Your task to perform on an android device: Open Google Maps and go to "Timeline" Image 0: 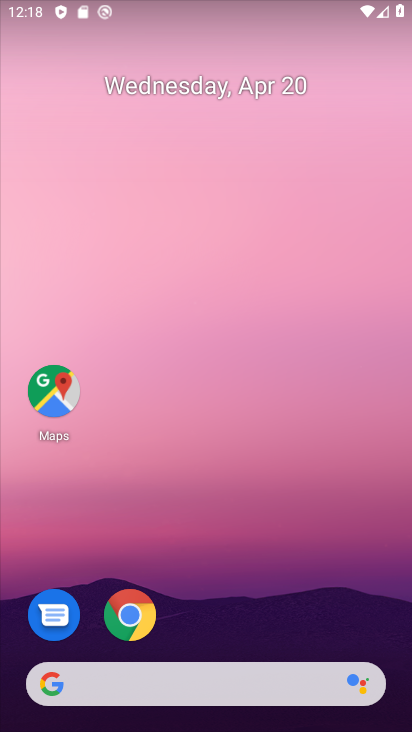
Step 0: click (35, 395)
Your task to perform on an android device: Open Google Maps and go to "Timeline" Image 1: 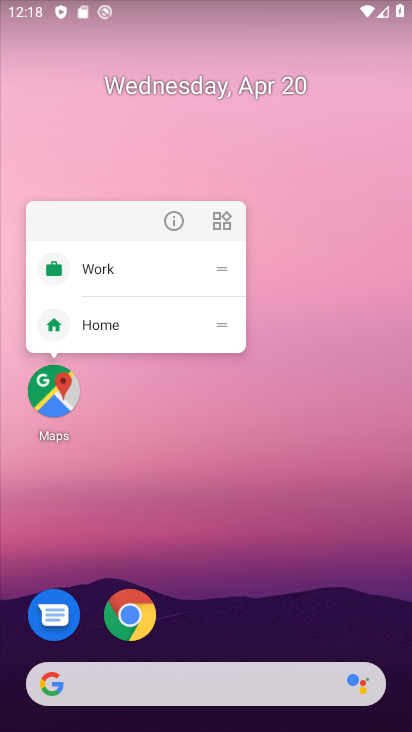
Step 1: click (48, 403)
Your task to perform on an android device: Open Google Maps and go to "Timeline" Image 2: 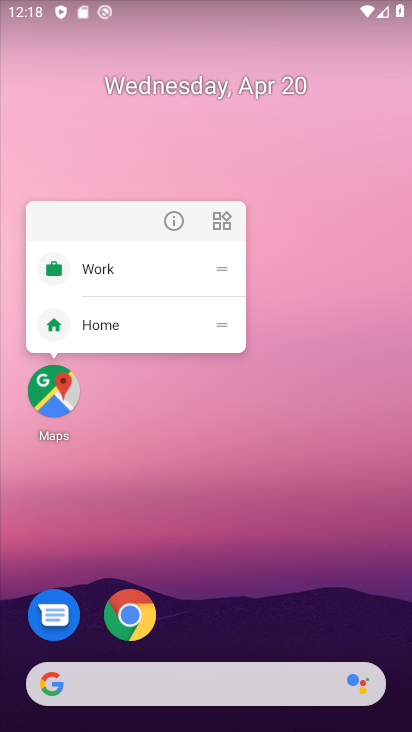
Step 2: click (42, 399)
Your task to perform on an android device: Open Google Maps and go to "Timeline" Image 3: 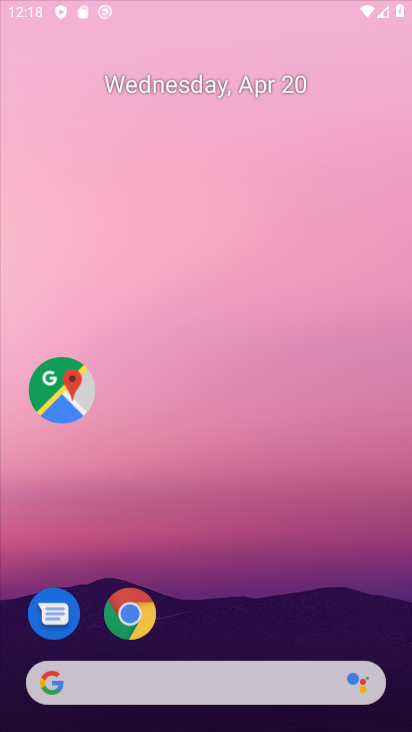
Step 3: click (42, 399)
Your task to perform on an android device: Open Google Maps and go to "Timeline" Image 4: 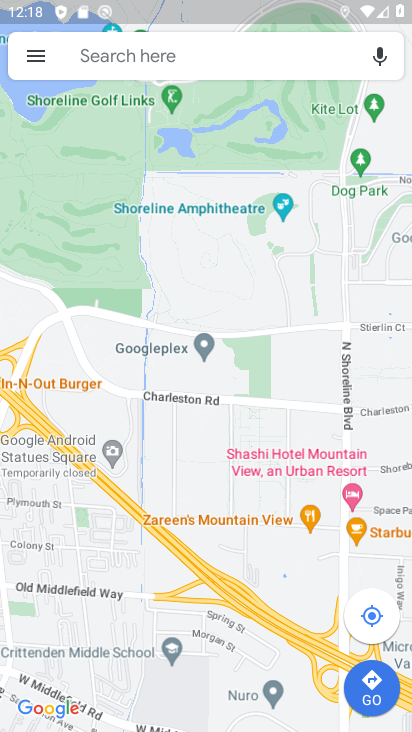
Step 4: click (34, 58)
Your task to perform on an android device: Open Google Maps and go to "Timeline" Image 5: 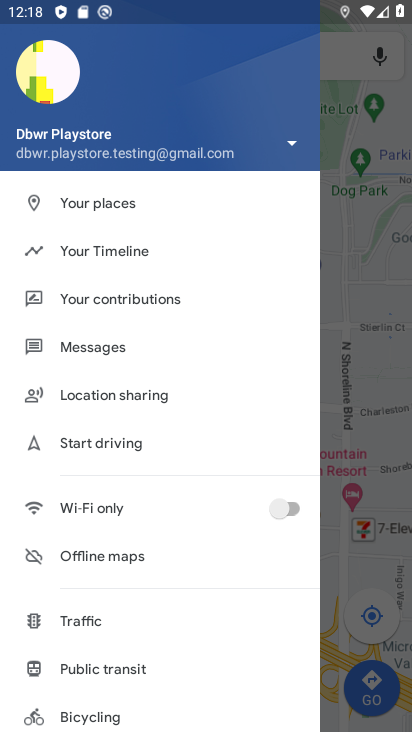
Step 5: click (120, 244)
Your task to perform on an android device: Open Google Maps and go to "Timeline" Image 6: 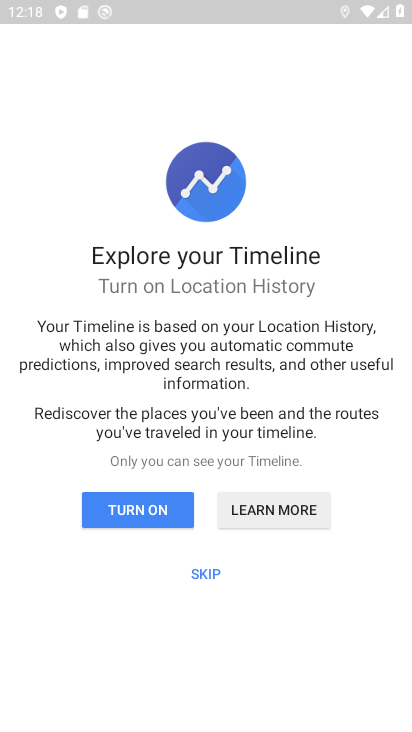
Step 6: click (216, 570)
Your task to perform on an android device: Open Google Maps and go to "Timeline" Image 7: 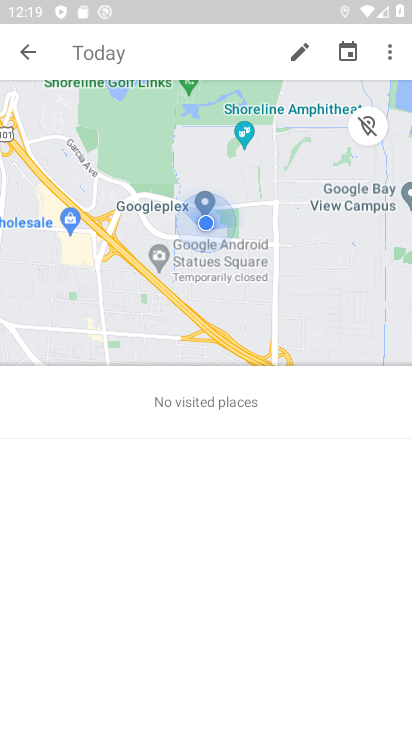
Step 7: task complete